Your task to perform on an android device: turn on sleep mode Image 0: 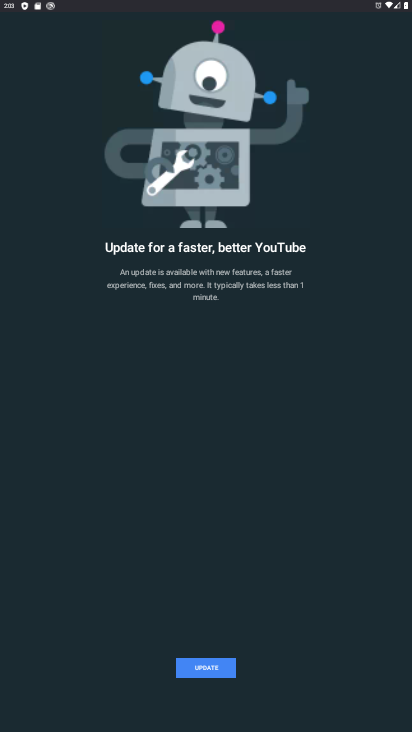
Step 0: press home button
Your task to perform on an android device: turn on sleep mode Image 1: 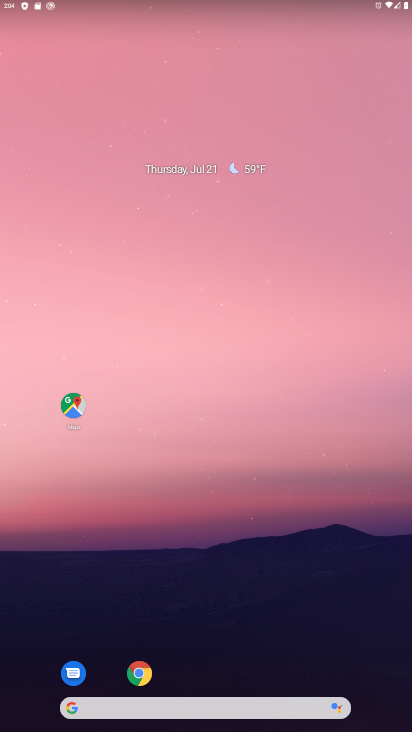
Step 1: drag from (183, 706) to (177, 270)
Your task to perform on an android device: turn on sleep mode Image 2: 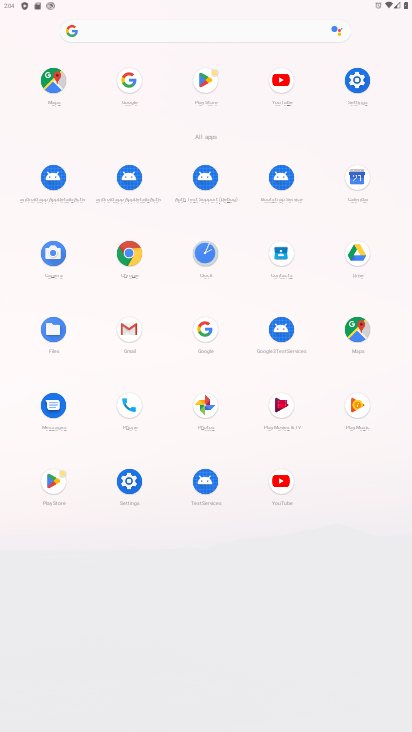
Step 2: click (357, 79)
Your task to perform on an android device: turn on sleep mode Image 3: 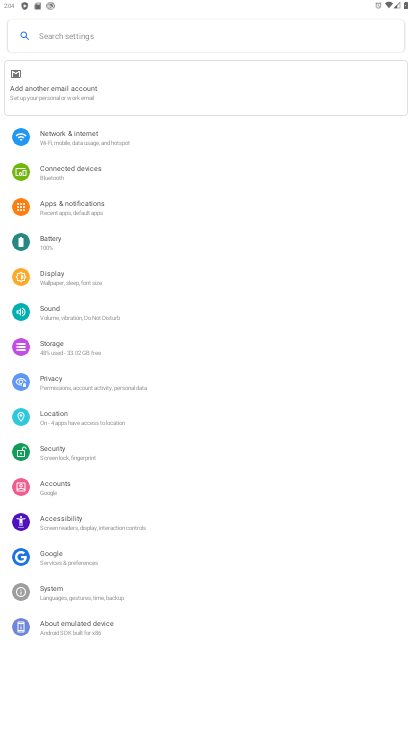
Step 3: click (62, 280)
Your task to perform on an android device: turn on sleep mode Image 4: 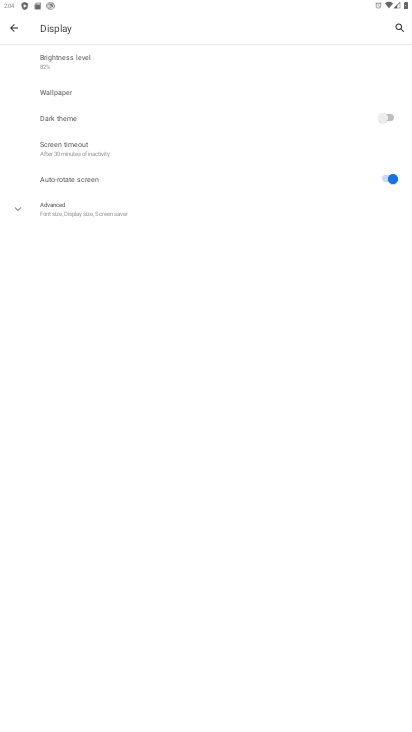
Step 4: click (89, 149)
Your task to perform on an android device: turn on sleep mode Image 5: 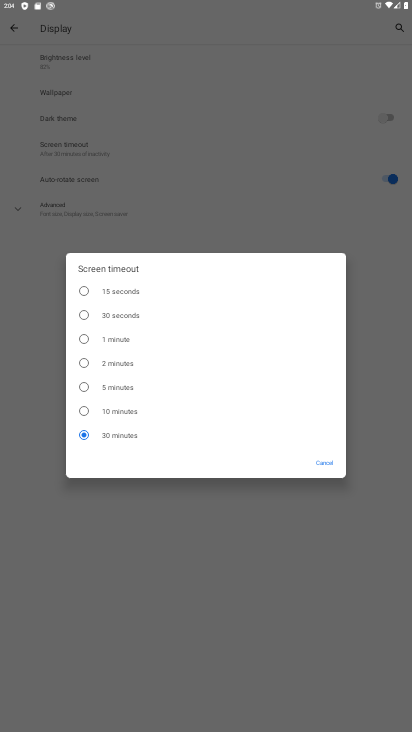
Step 5: click (328, 464)
Your task to perform on an android device: turn on sleep mode Image 6: 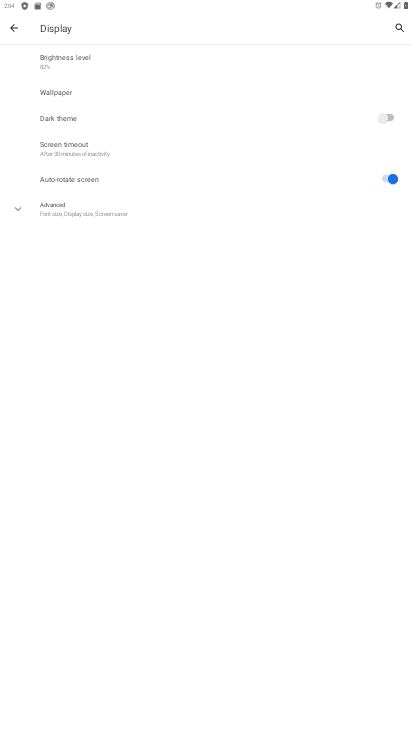
Step 6: task complete